Your task to perform on an android device: Search for Mexican restaurants on Maps Image 0: 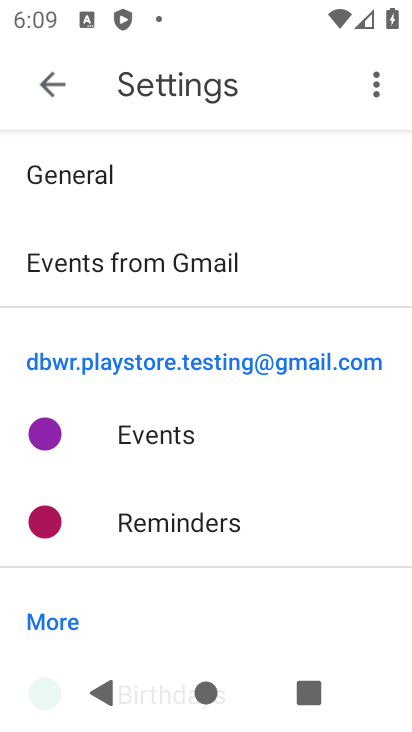
Step 0: press home button
Your task to perform on an android device: Search for Mexican restaurants on Maps Image 1: 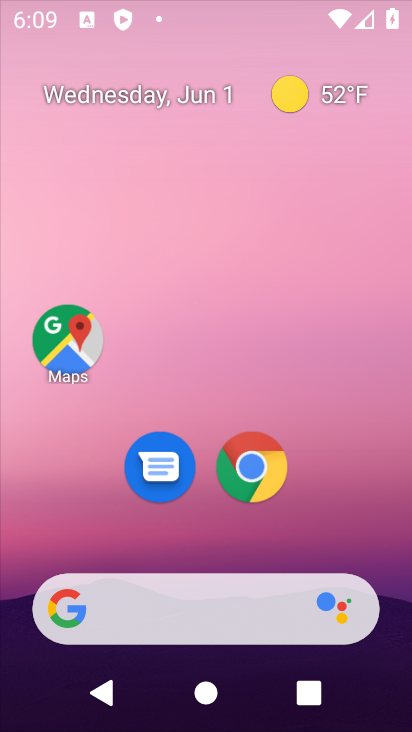
Step 1: click (31, 331)
Your task to perform on an android device: Search for Mexican restaurants on Maps Image 2: 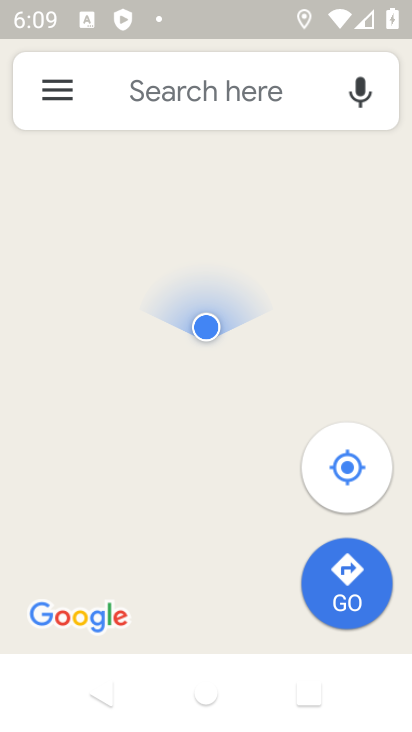
Step 2: click (223, 94)
Your task to perform on an android device: Search for Mexican restaurants on Maps Image 3: 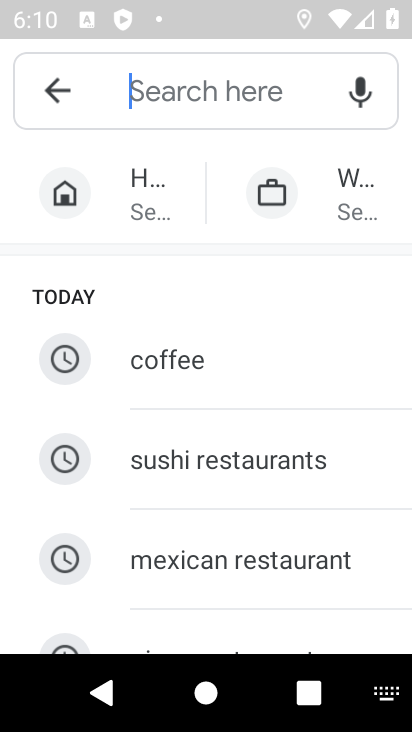
Step 3: click (209, 543)
Your task to perform on an android device: Search for Mexican restaurants on Maps Image 4: 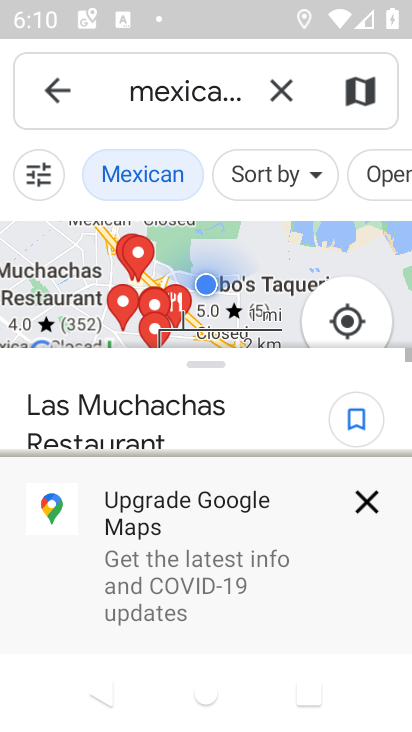
Step 4: task complete